Your task to perform on an android device: change notification settings in the gmail app Image 0: 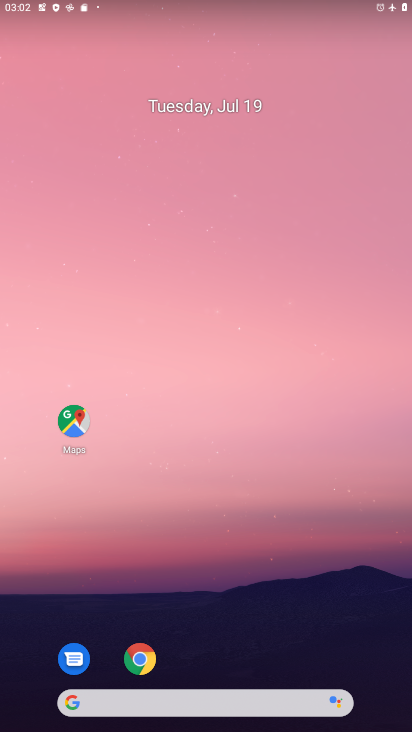
Step 0: press home button
Your task to perform on an android device: change notification settings in the gmail app Image 1: 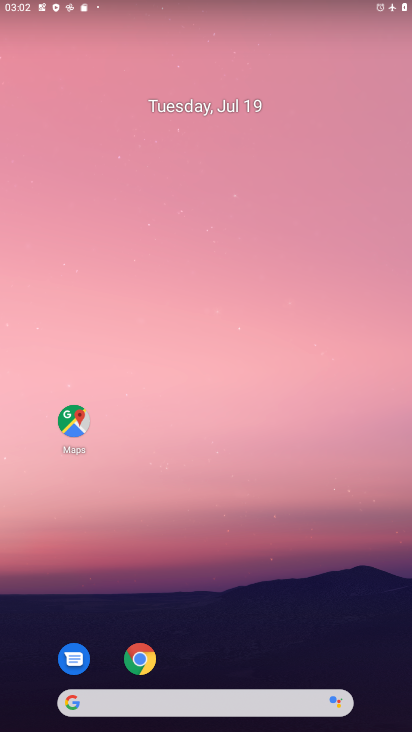
Step 1: drag from (303, 582) to (334, 23)
Your task to perform on an android device: change notification settings in the gmail app Image 2: 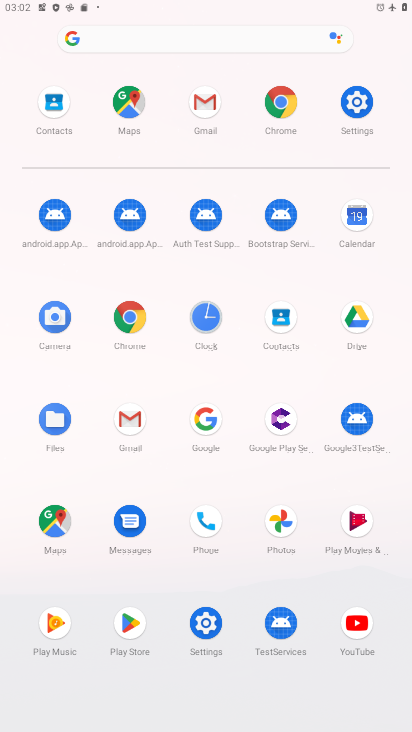
Step 2: click (120, 425)
Your task to perform on an android device: change notification settings in the gmail app Image 3: 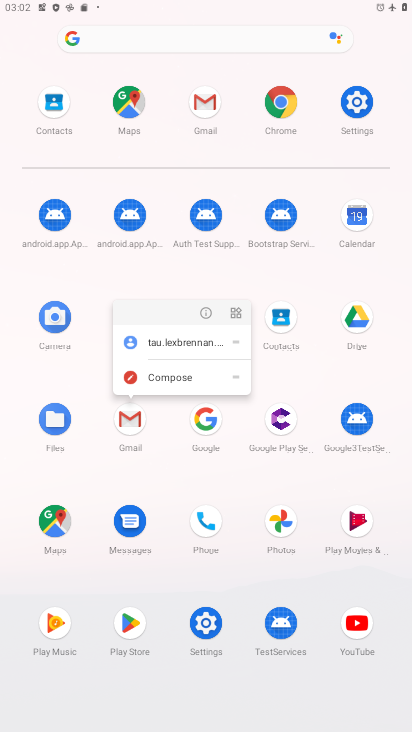
Step 3: click (196, 316)
Your task to perform on an android device: change notification settings in the gmail app Image 4: 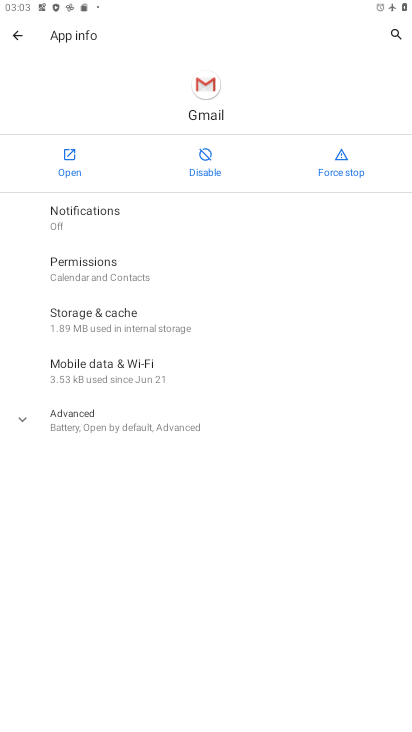
Step 4: click (70, 233)
Your task to perform on an android device: change notification settings in the gmail app Image 5: 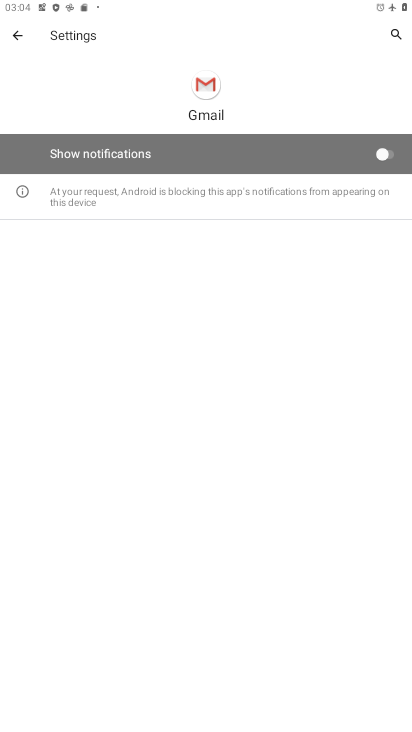
Step 5: click (192, 169)
Your task to perform on an android device: change notification settings in the gmail app Image 6: 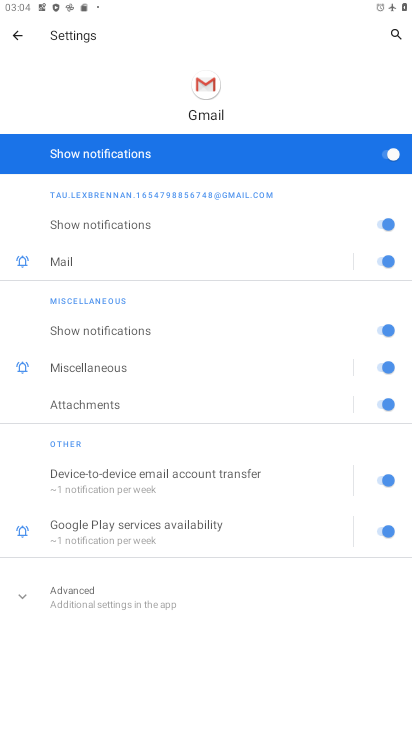
Step 6: task complete